Your task to perform on an android device: check android version Image 0: 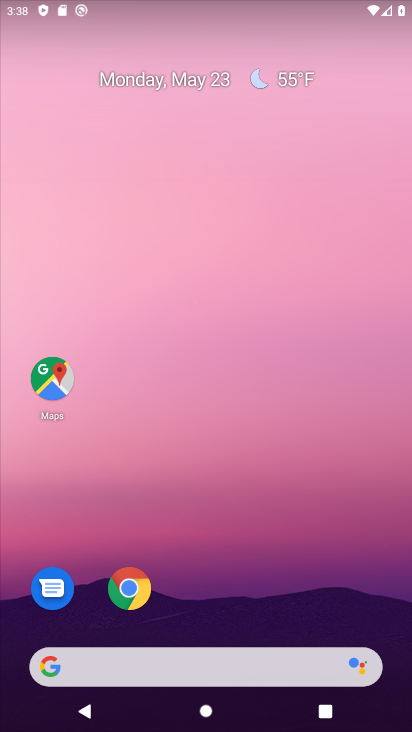
Step 0: drag from (247, 594) to (277, 94)
Your task to perform on an android device: check android version Image 1: 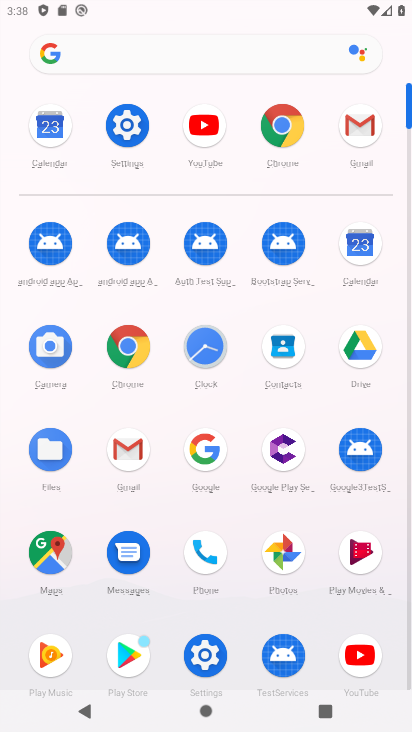
Step 1: click (128, 124)
Your task to perform on an android device: check android version Image 2: 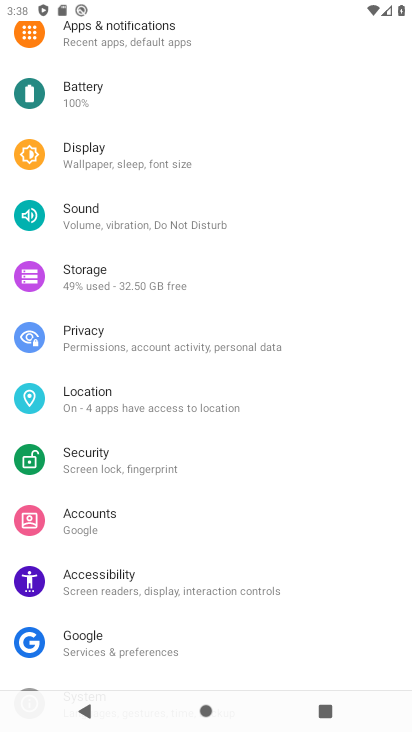
Step 2: drag from (178, 614) to (208, 120)
Your task to perform on an android device: check android version Image 3: 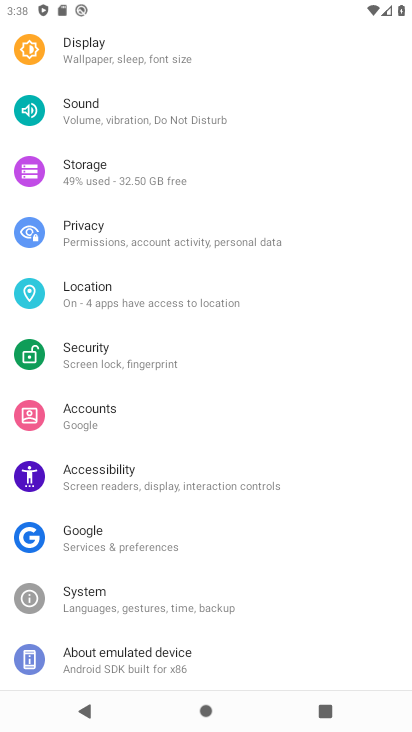
Step 3: click (120, 660)
Your task to perform on an android device: check android version Image 4: 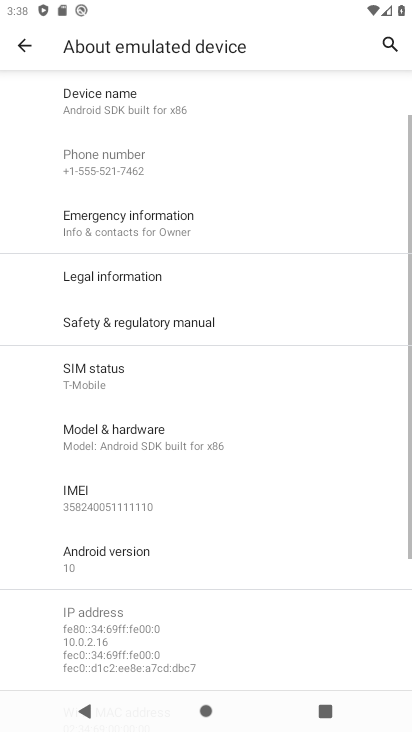
Step 4: click (96, 562)
Your task to perform on an android device: check android version Image 5: 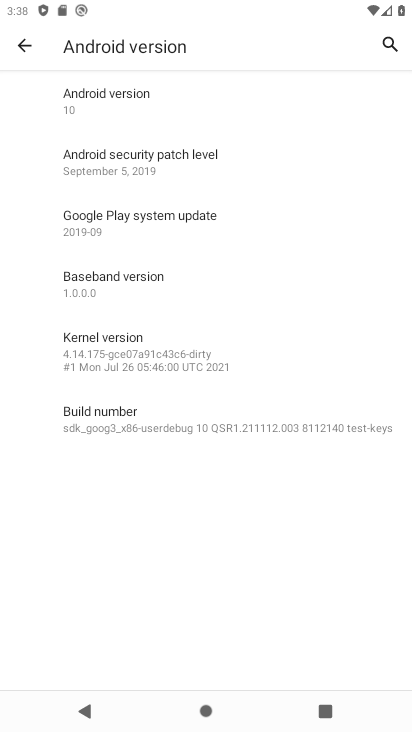
Step 5: task complete